Your task to perform on an android device: How do I get to the nearest T-Mobile Store? Image 0: 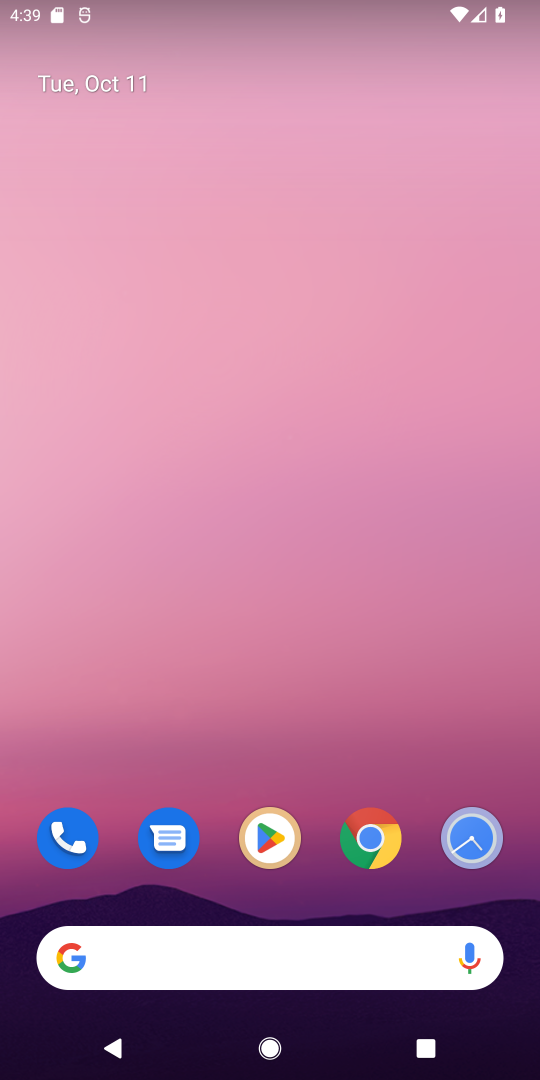
Step 0: click (367, 849)
Your task to perform on an android device: How do I get to the nearest T-Mobile Store? Image 1: 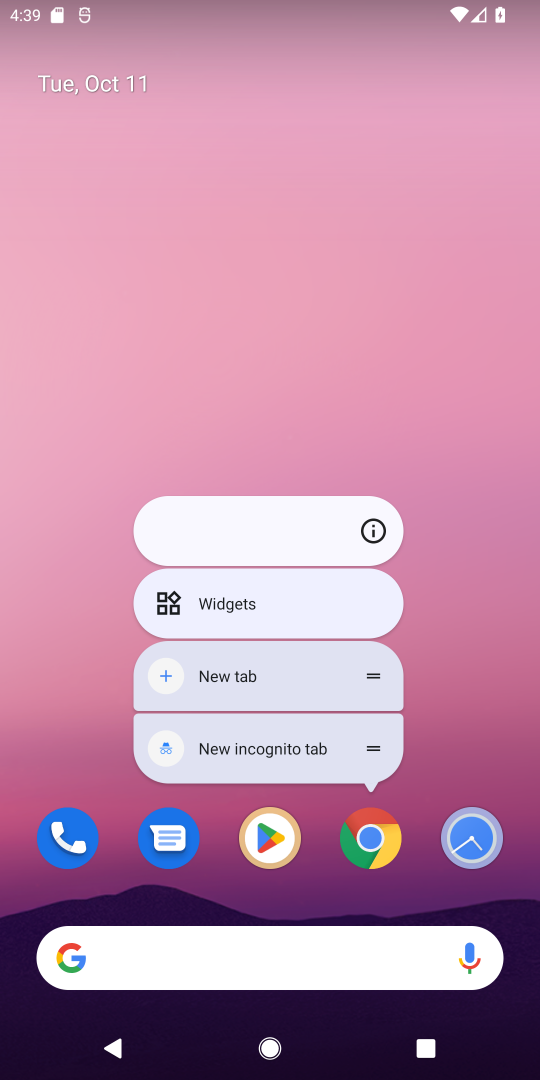
Step 1: click (368, 853)
Your task to perform on an android device: How do I get to the nearest T-Mobile Store? Image 2: 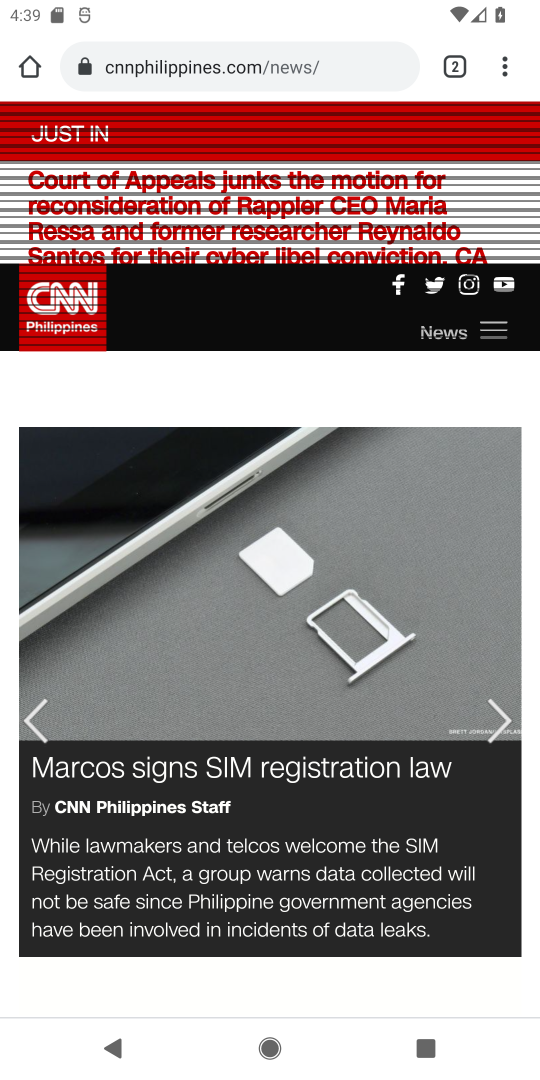
Step 2: click (202, 70)
Your task to perform on an android device: How do I get to the nearest T-Mobile Store? Image 3: 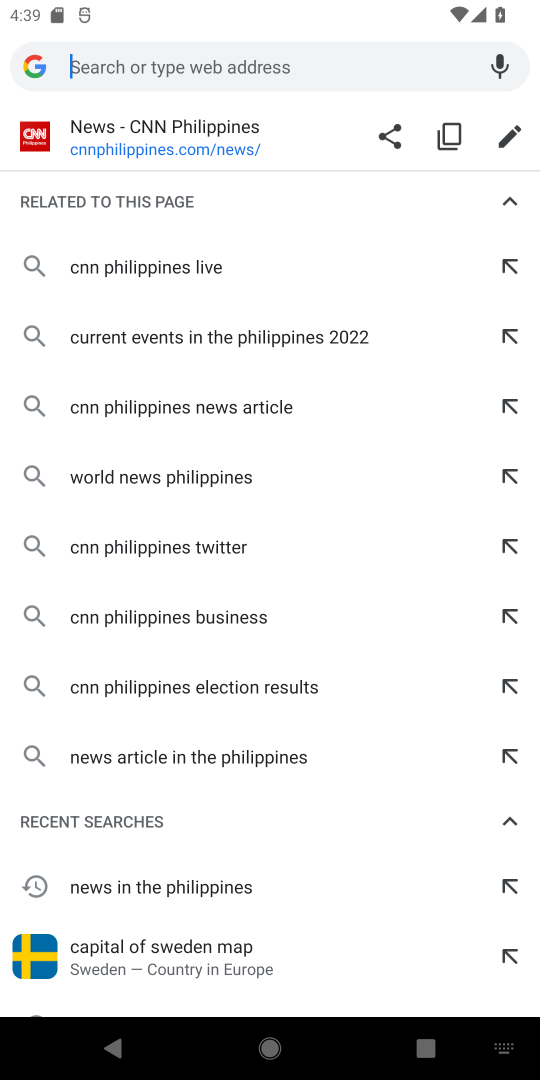
Step 3: type "nearest t mobile store "
Your task to perform on an android device: How do I get to the nearest T-Mobile Store? Image 4: 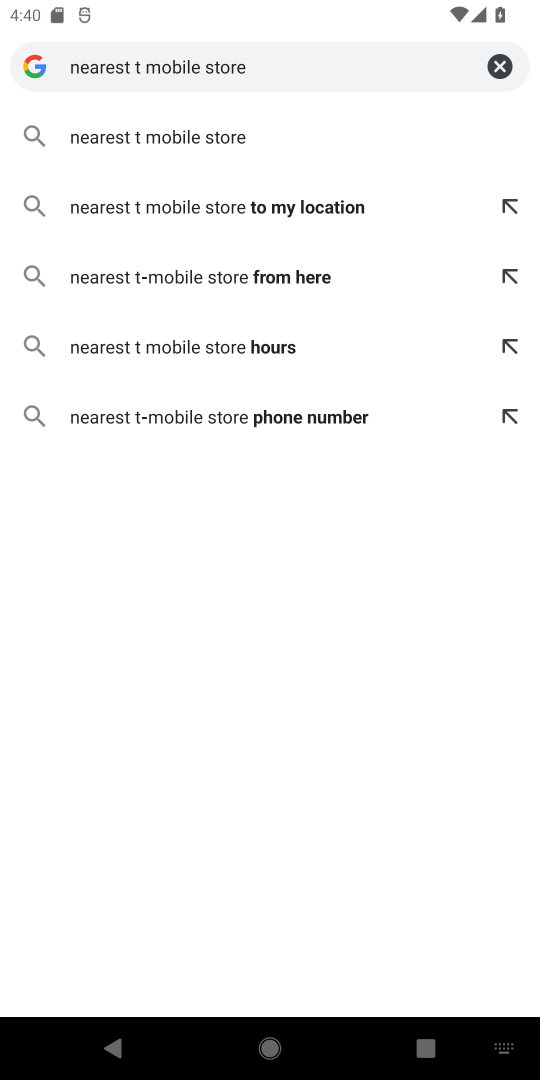
Step 4: click (197, 139)
Your task to perform on an android device: How do I get to the nearest T-Mobile Store? Image 5: 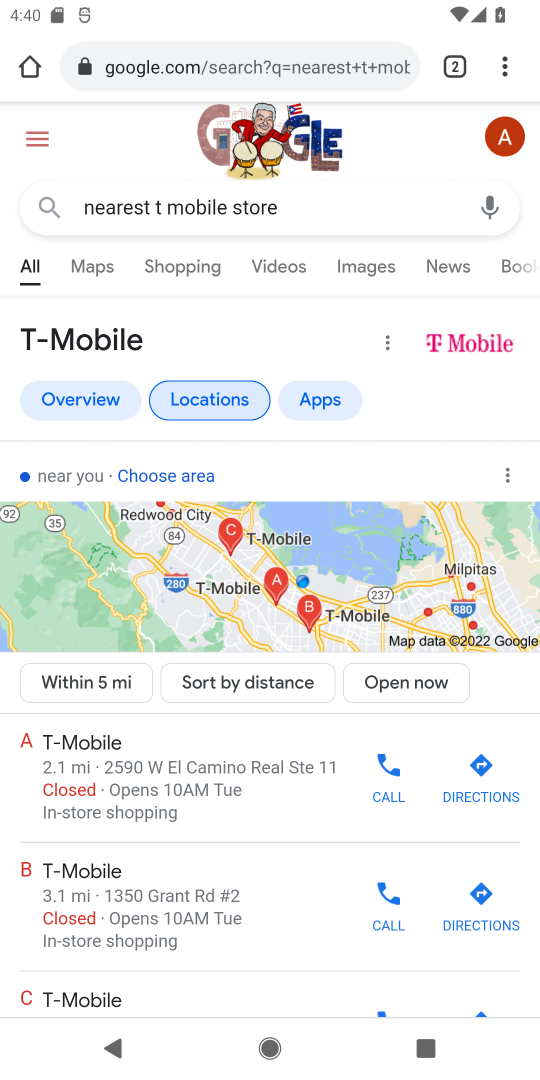
Step 5: drag from (159, 920) to (223, 467)
Your task to perform on an android device: How do I get to the nearest T-Mobile Store? Image 6: 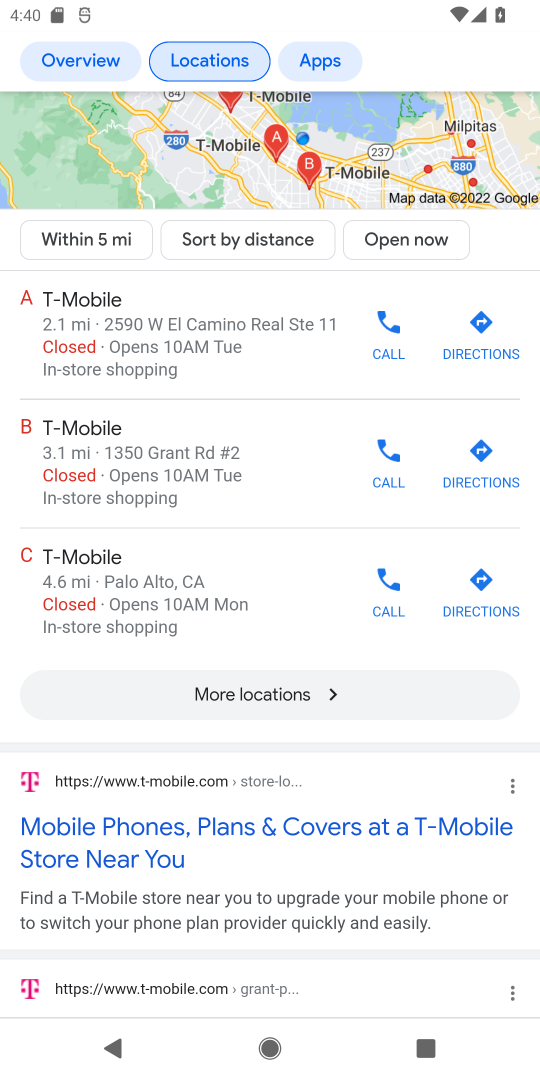
Step 6: drag from (227, 538) to (255, 342)
Your task to perform on an android device: How do I get to the nearest T-Mobile Store? Image 7: 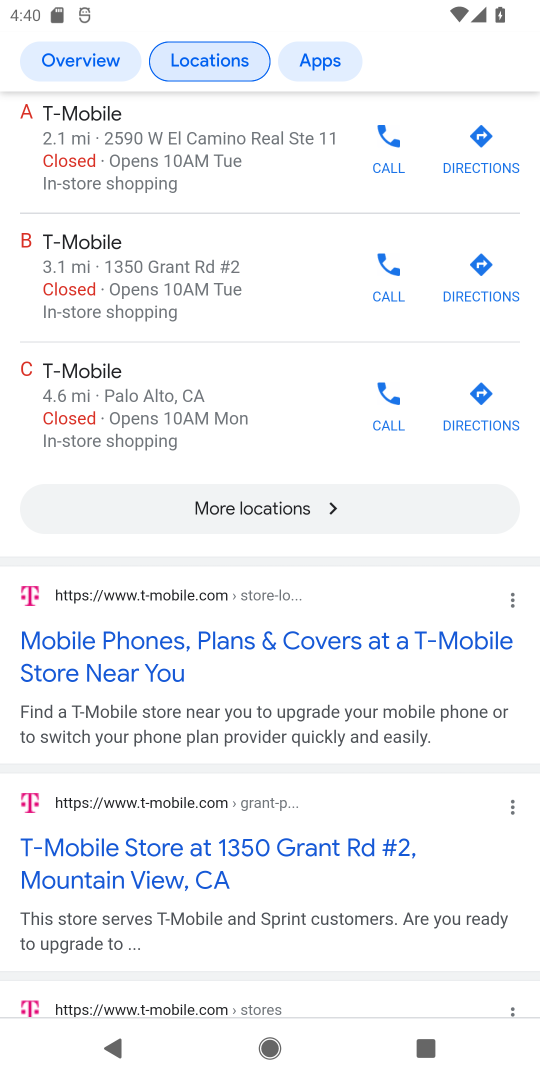
Step 7: drag from (208, 707) to (248, 175)
Your task to perform on an android device: How do I get to the nearest T-Mobile Store? Image 8: 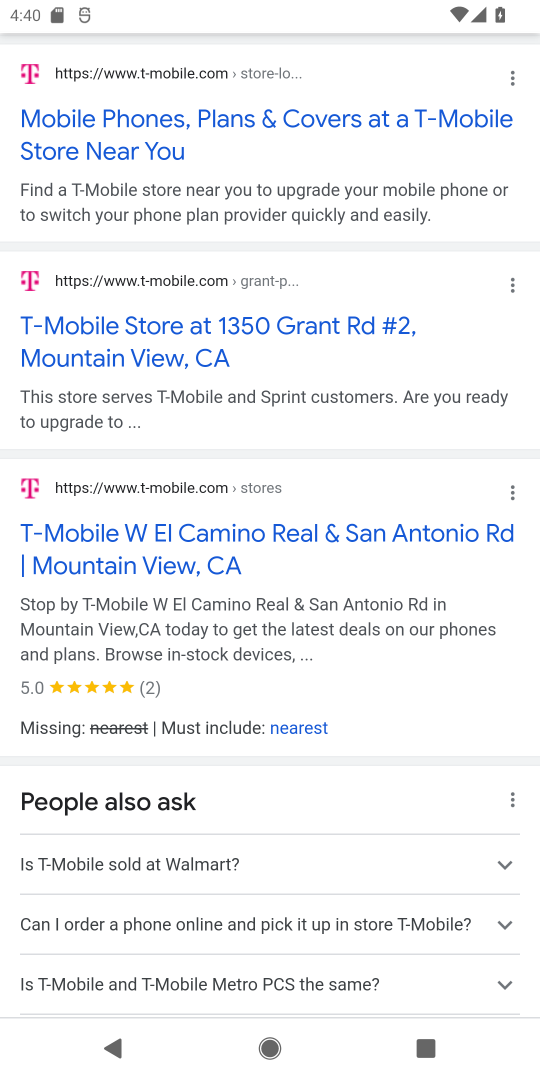
Step 8: drag from (185, 758) to (289, 297)
Your task to perform on an android device: How do I get to the nearest T-Mobile Store? Image 9: 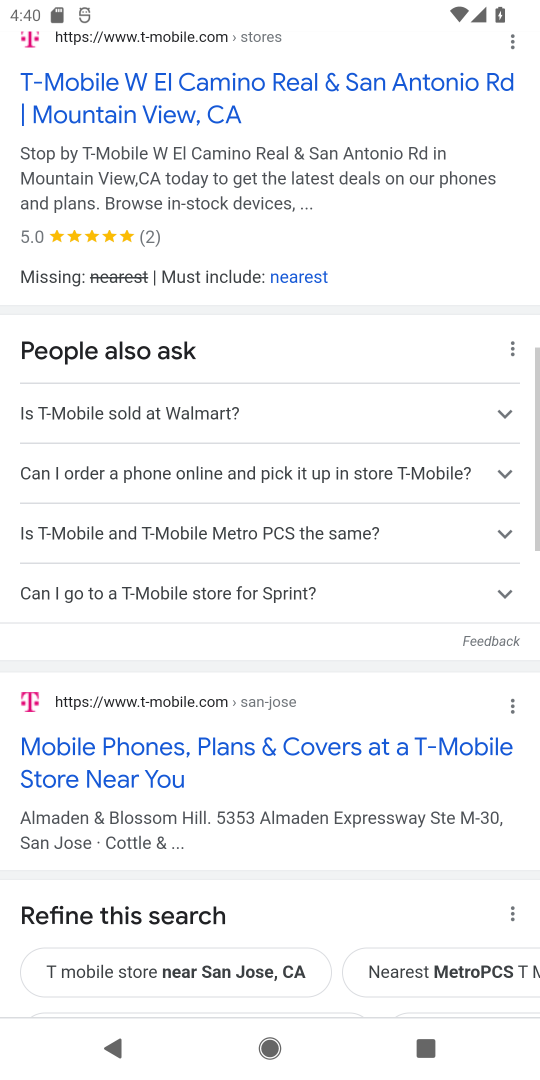
Step 9: drag from (144, 919) to (336, 357)
Your task to perform on an android device: How do I get to the nearest T-Mobile Store? Image 10: 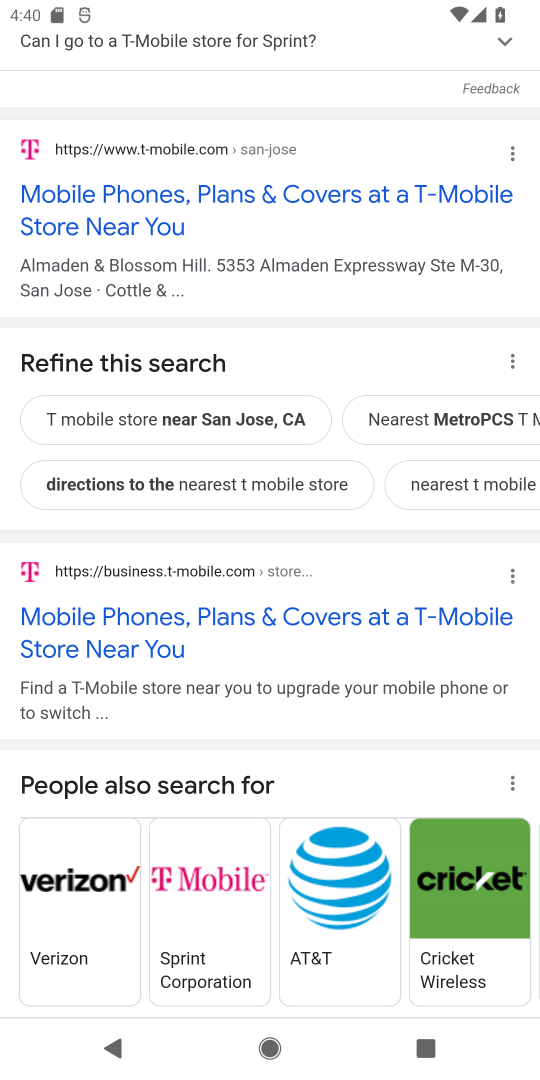
Step 10: drag from (397, 381) to (386, 732)
Your task to perform on an android device: How do I get to the nearest T-Mobile Store? Image 11: 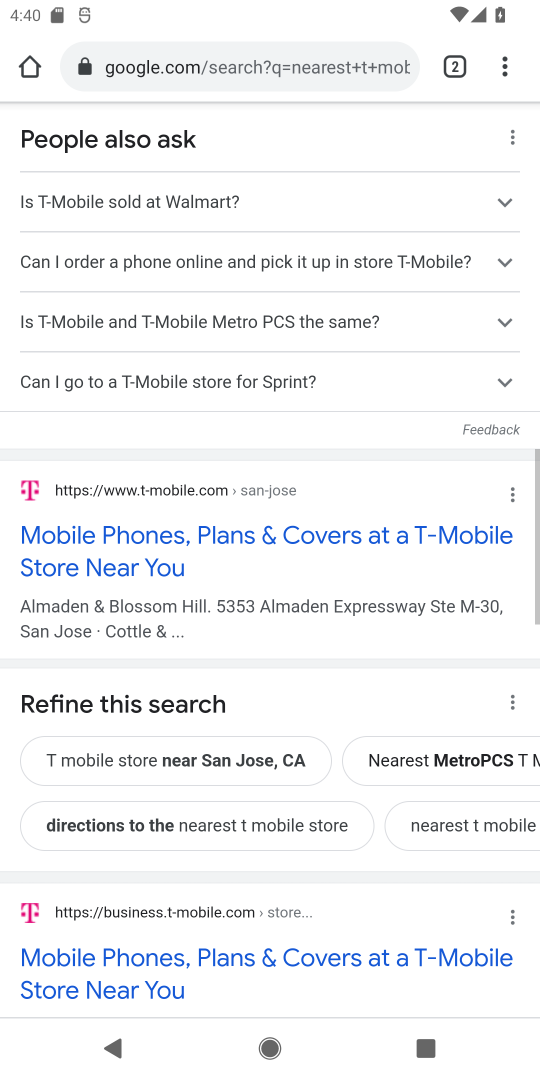
Step 11: drag from (243, 426) to (257, 913)
Your task to perform on an android device: How do I get to the nearest T-Mobile Store? Image 12: 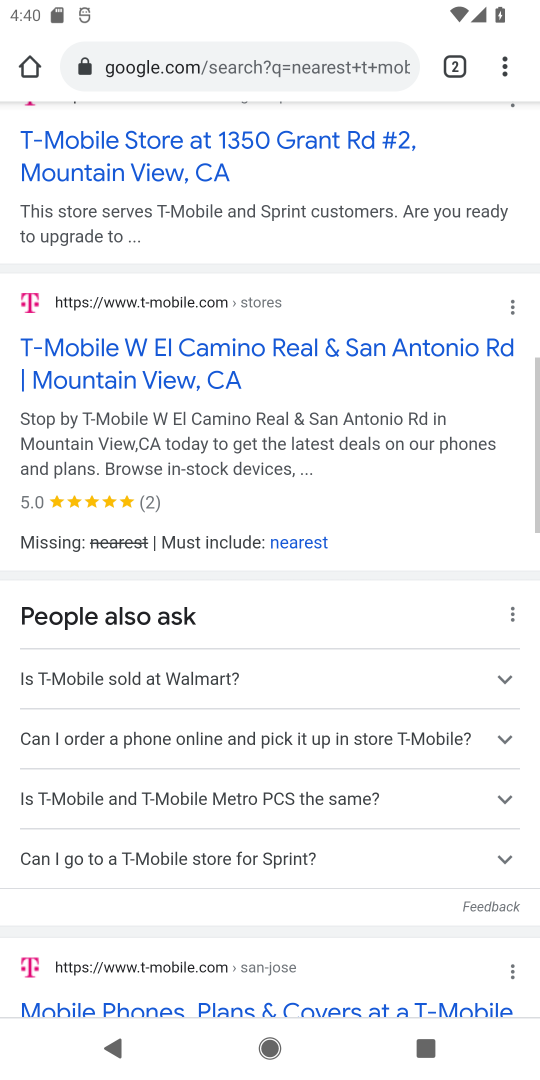
Step 12: drag from (313, 358) to (302, 1003)
Your task to perform on an android device: How do I get to the nearest T-Mobile Store? Image 13: 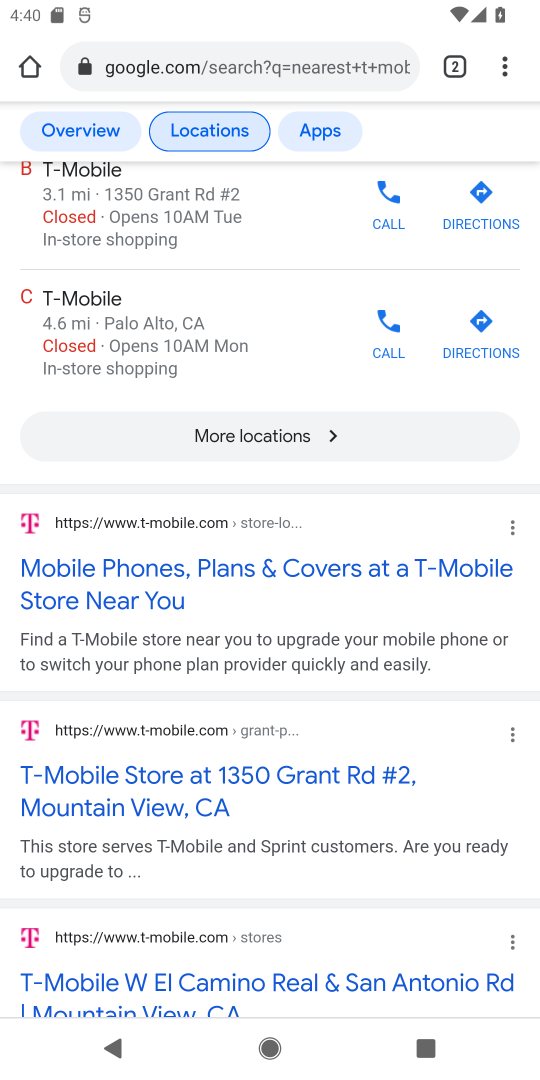
Step 13: drag from (173, 364) to (165, 940)
Your task to perform on an android device: How do I get to the nearest T-Mobile Store? Image 14: 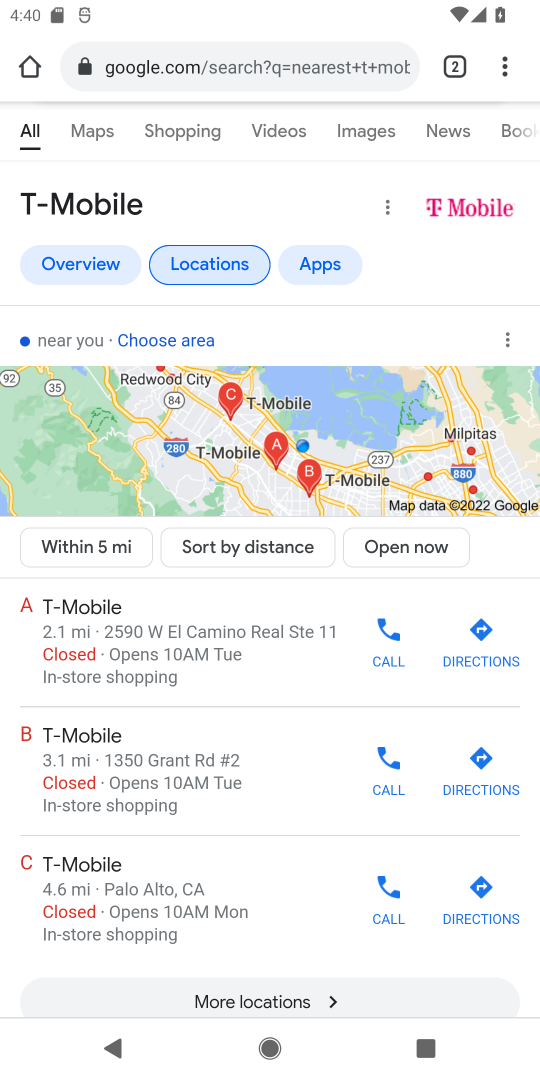
Step 14: click (82, 612)
Your task to perform on an android device: How do I get to the nearest T-Mobile Store? Image 15: 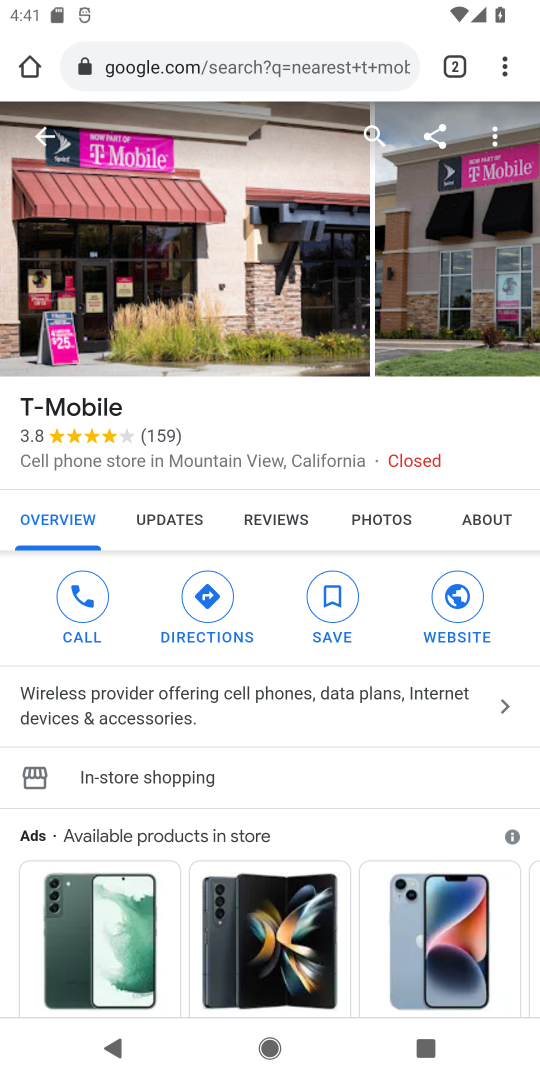
Step 15: drag from (344, 675) to (358, 386)
Your task to perform on an android device: How do I get to the nearest T-Mobile Store? Image 16: 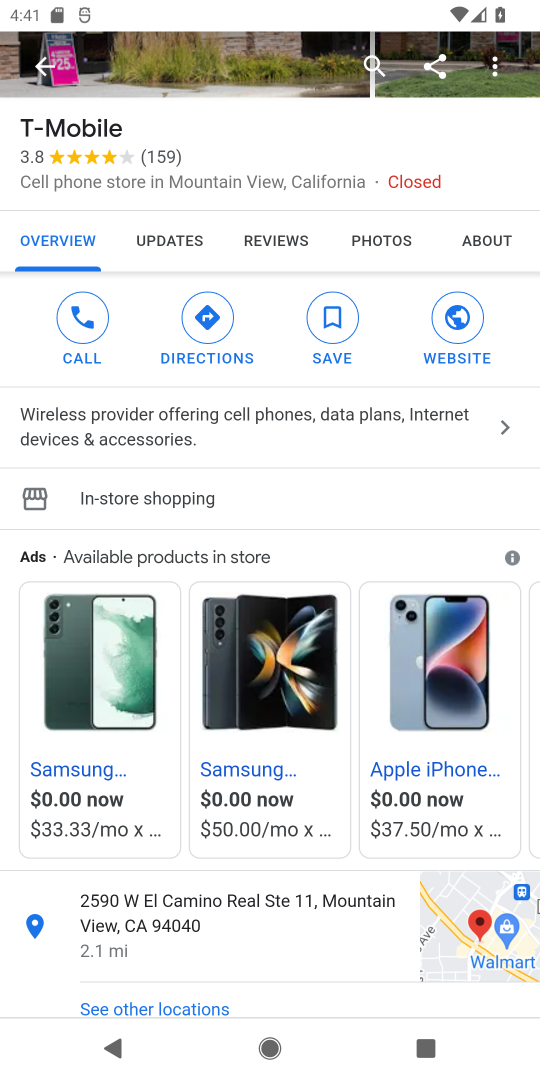
Step 16: drag from (256, 843) to (381, 212)
Your task to perform on an android device: How do I get to the nearest T-Mobile Store? Image 17: 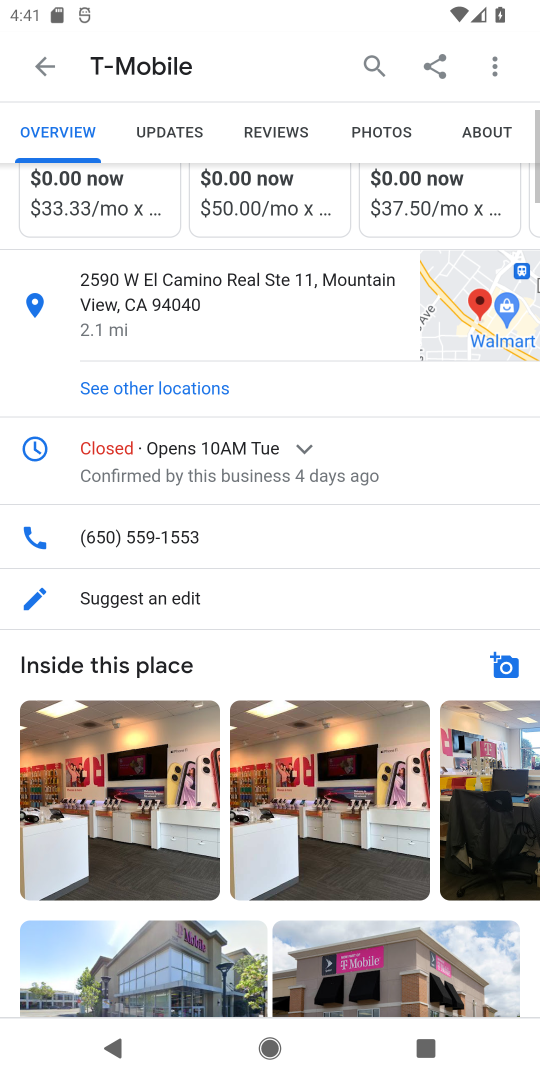
Step 17: drag from (199, 768) to (263, 338)
Your task to perform on an android device: How do I get to the nearest T-Mobile Store? Image 18: 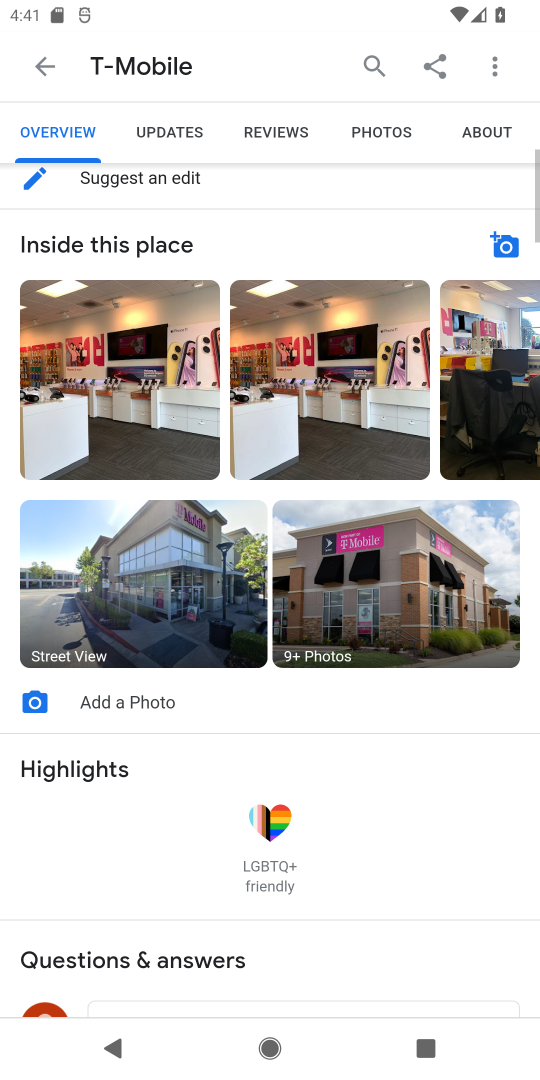
Step 18: drag from (182, 766) to (279, 315)
Your task to perform on an android device: How do I get to the nearest T-Mobile Store? Image 19: 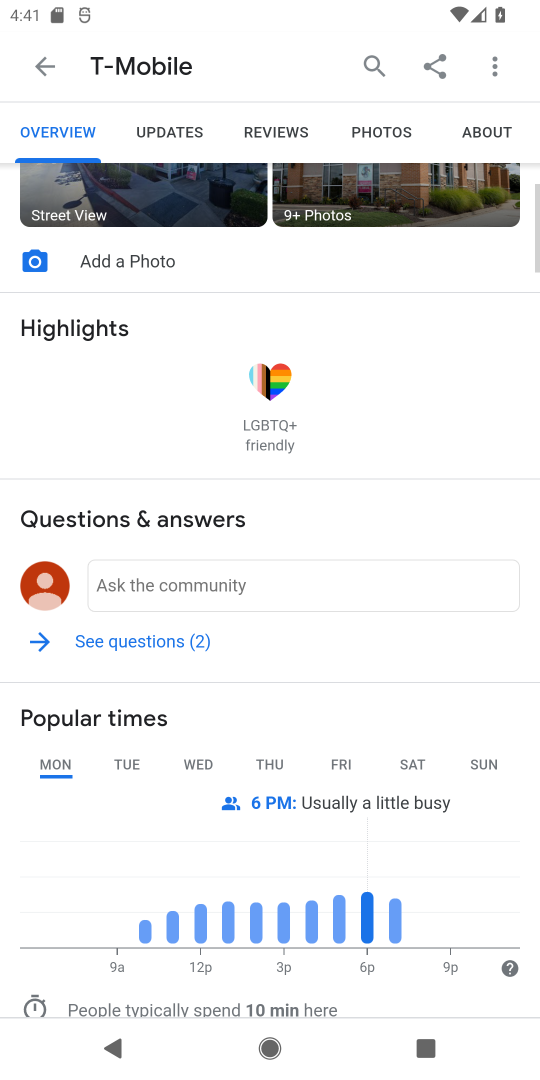
Step 19: drag from (180, 814) to (269, 298)
Your task to perform on an android device: How do I get to the nearest T-Mobile Store? Image 20: 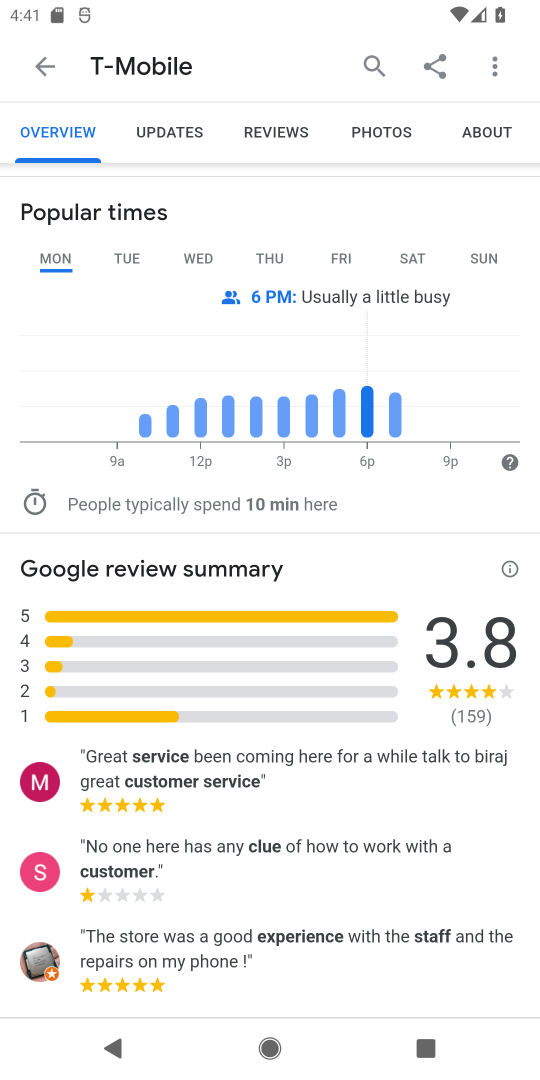
Step 20: drag from (435, 366) to (431, 873)
Your task to perform on an android device: How do I get to the nearest T-Mobile Store? Image 21: 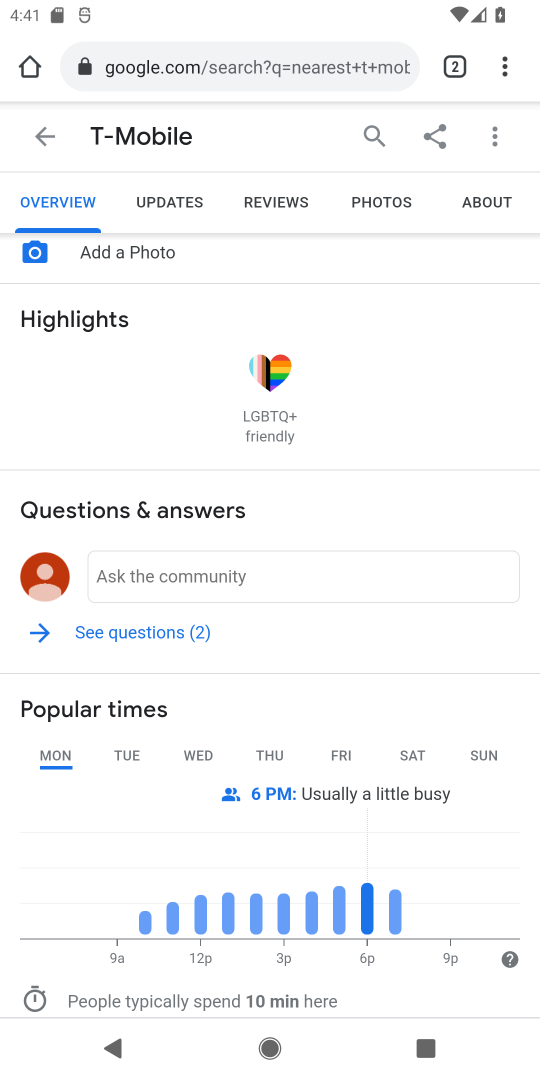
Step 21: drag from (386, 420) to (392, 878)
Your task to perform on an android device: How do I get to the nearest T-Mobile Store? Image 22: 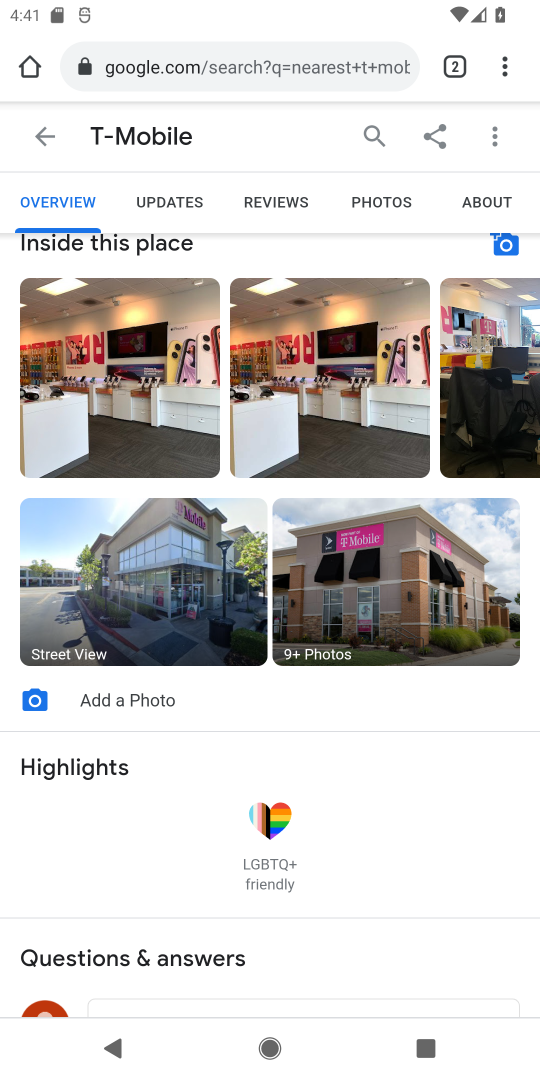
Step 22: drag from (337, 431) to (294, 821)
Your task to perform on an android device: How do I get to the nearest T-Mobile Store? Image 23: 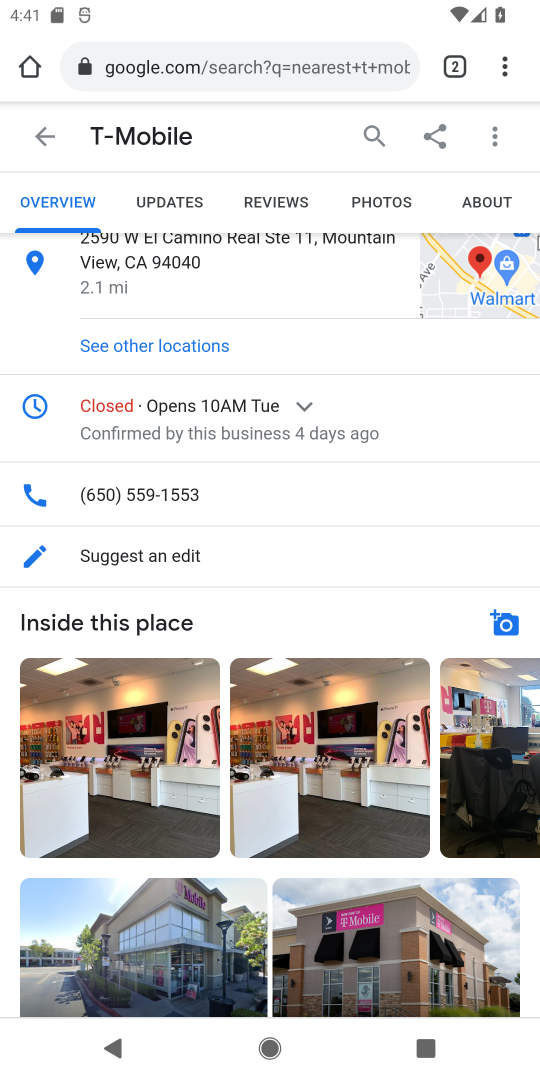
Step 23: drag from (336, 398) to (340, 935)
Your task to perform on an android device: How do I get to the nearest T-Mobile Store? Image 24: 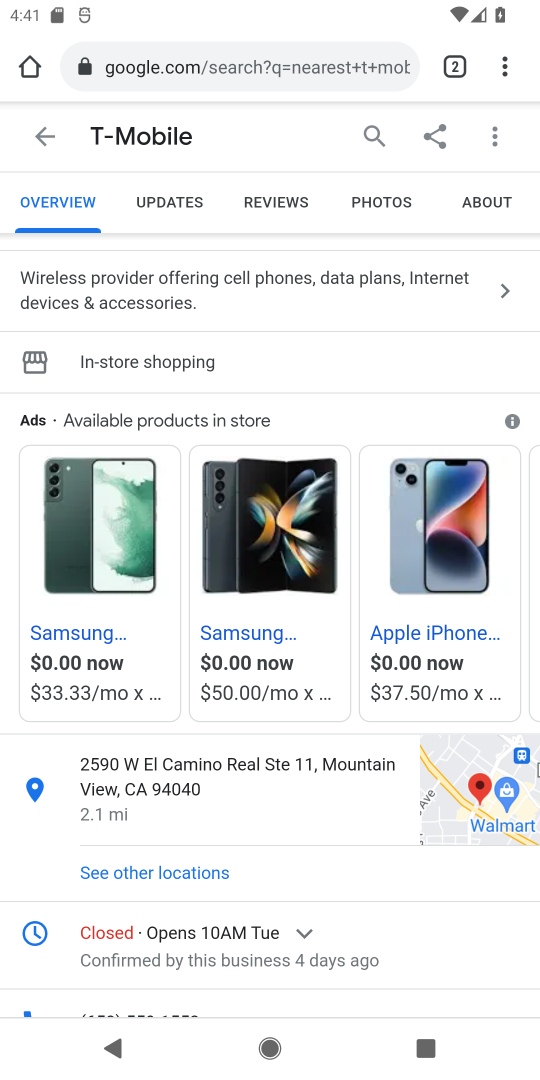
Step 24: drag from (287, 370) to (274, 909)
Your task to perform on an android device: How do I get to the nearest T-Mobile Store? Image 25: 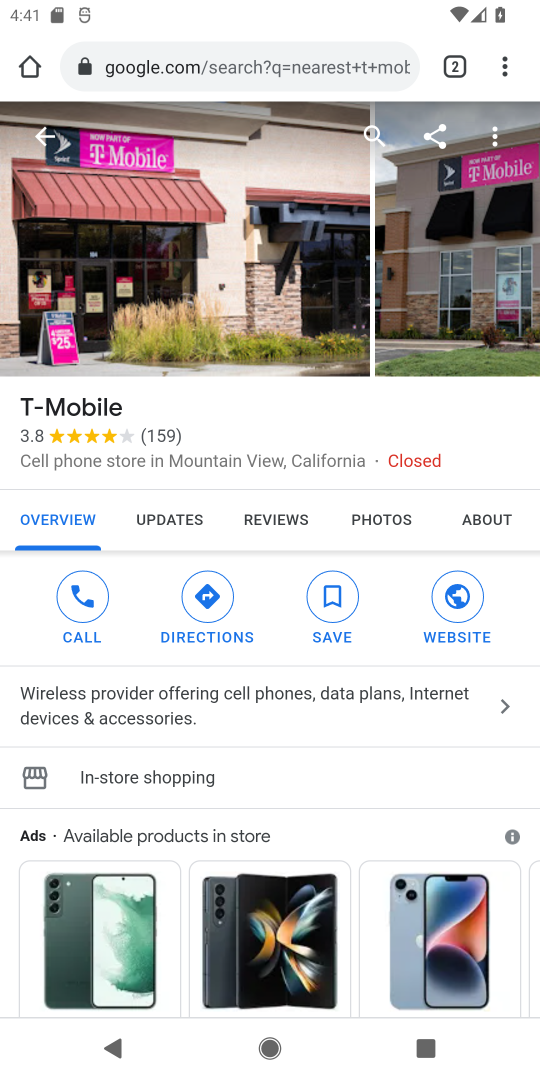
Step 25: drag from (258, 450) to (209, 856)
Your task to perform on an android device: How do I get to the nearest T-Mobile Store? Image 26: 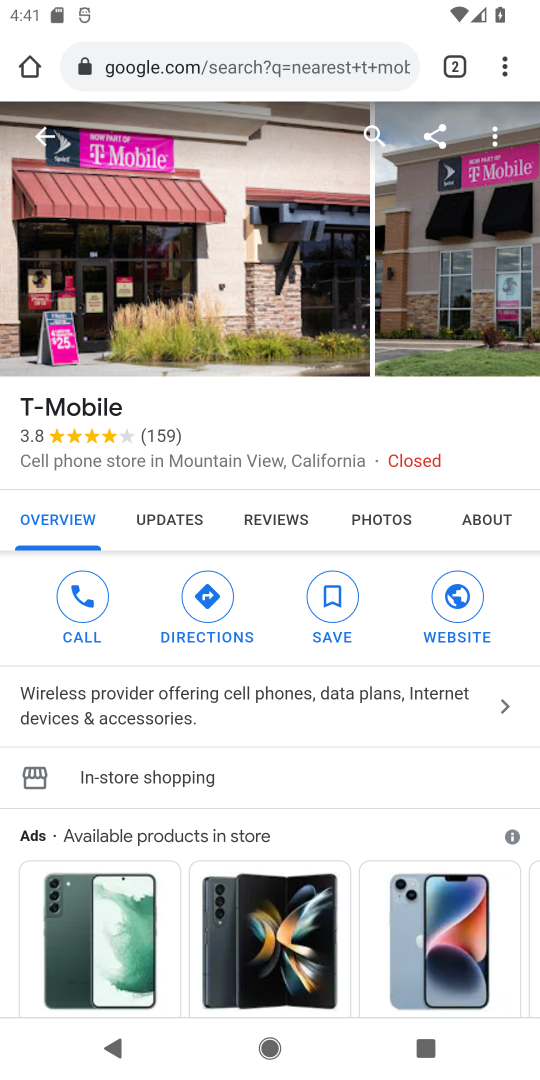
Step 26: drag from (262, 514) to (254, 939)
Your task to perform on an android device: How do I get to the nearest T-Mobile Store? Image 27: 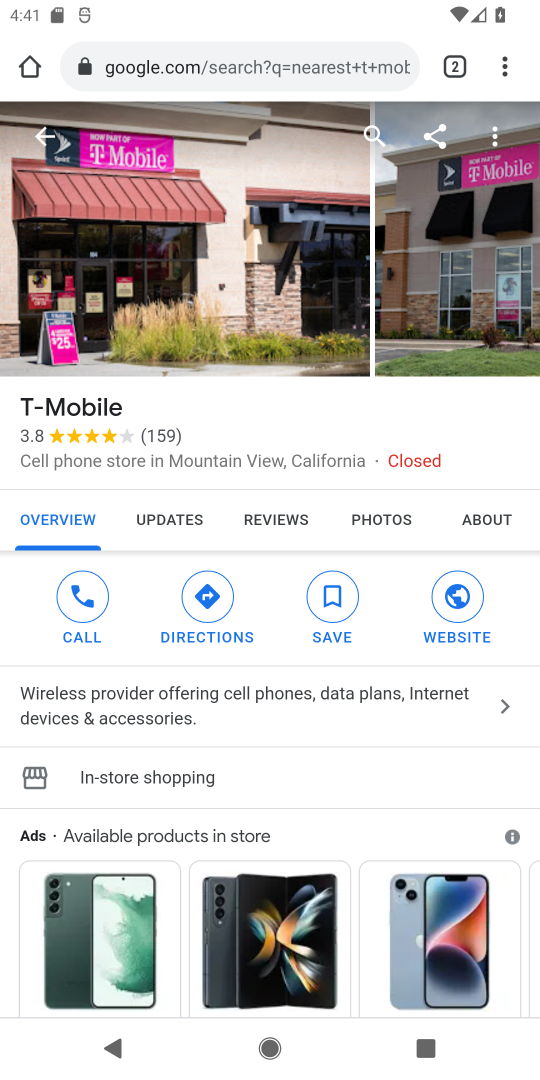
Step 27: drag from (274, 276) to (275, 757)
Your task to perform on an android device: How do I get to the nearest T-Mobile Store? Image 28: 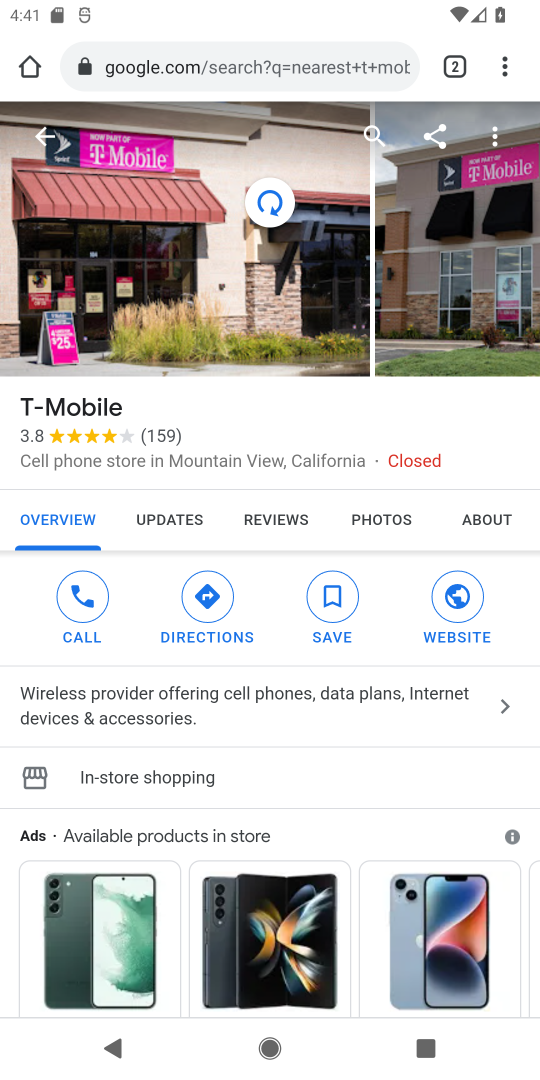
Step 28: drag from (287, 770) to (342, 312)
Your task to perform on an android device: How do I get to the nearest T-Mobile Store? Image 29: 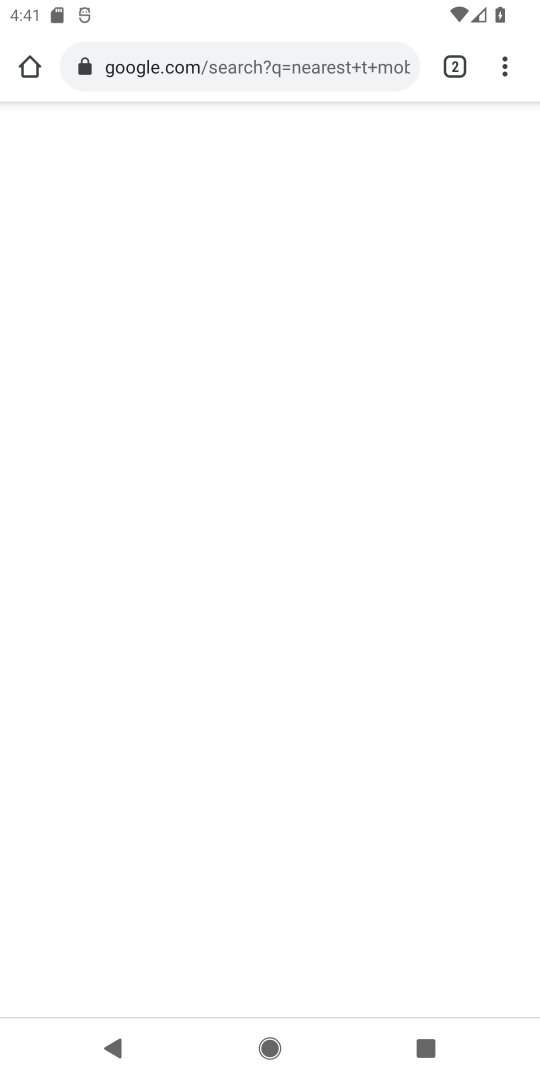
Step 29: drag from (243, 853) to (274, 329)
Your task to perform on an android device: How do I get to the nearest T-Mobile Store? Image 30: 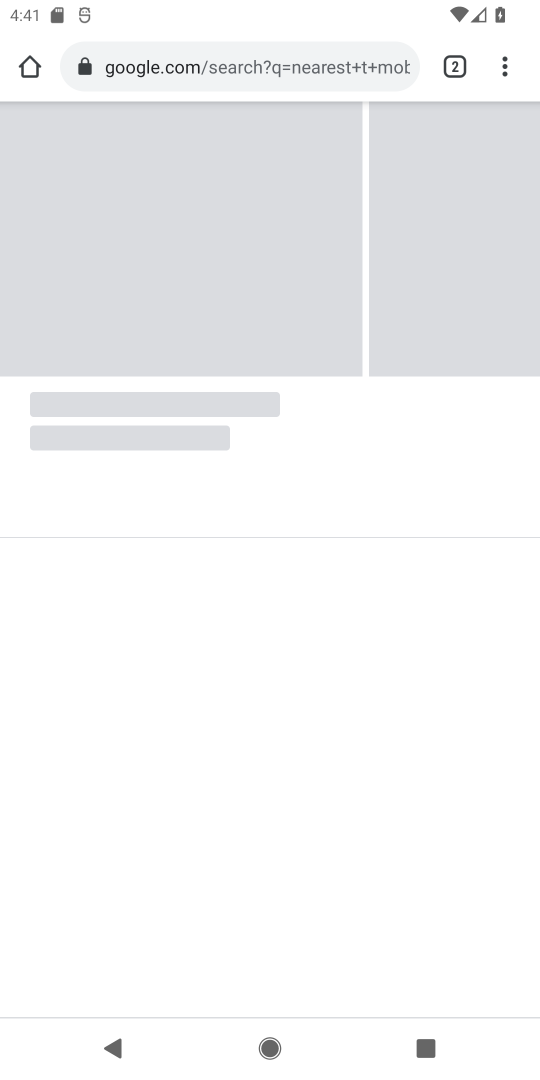
Step 30: click (265, 462)
Your task to perform on an android device: How do I get to the nearest T-Mobile Store? Image 31: 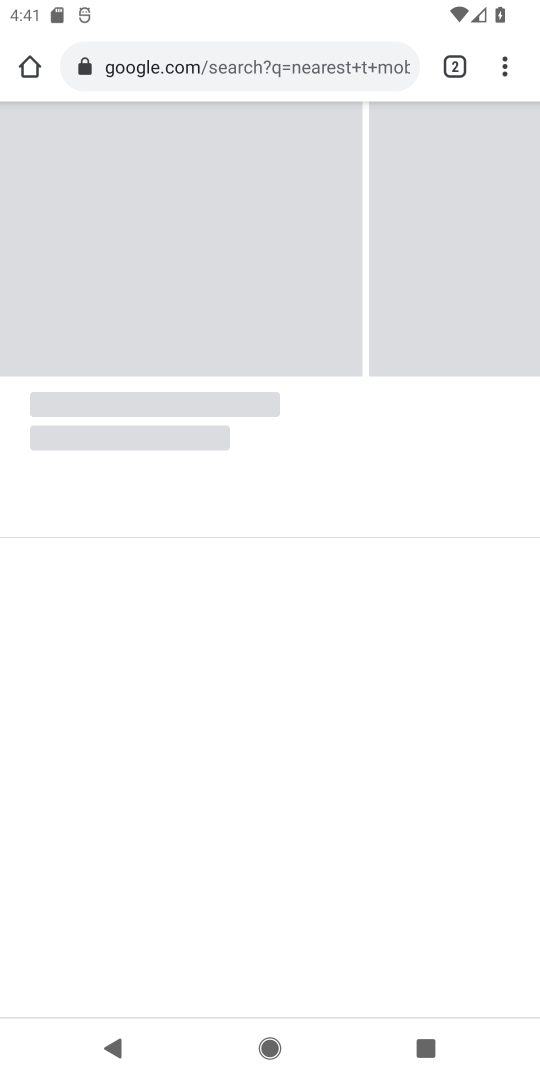
Step 31: task complete